Your task to perform on an android device: Is it going to rain this weekend? Image 0: 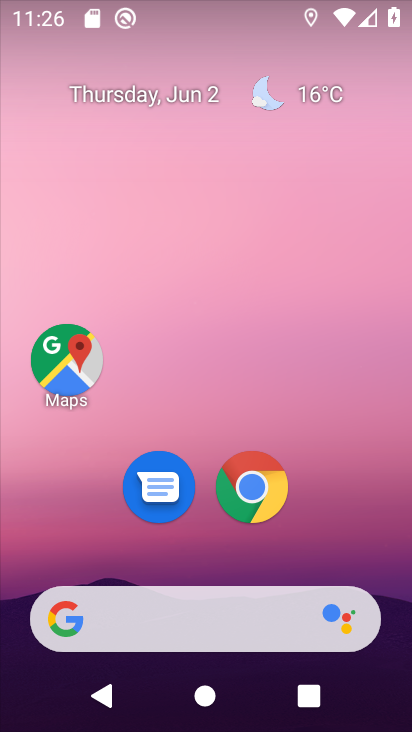
Step 0: drag from (337, 499) to (309, 43)
Your task to perform on an android device: Is it going to rain this weekend? Image 1: 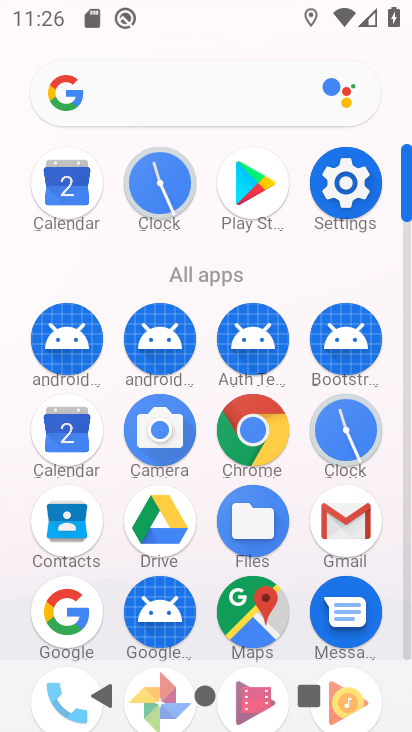
Step 1: drag from (296, 287) to (291, 66)
Your task to perform on an android device: Is it going to rain this weekend? Image 2: 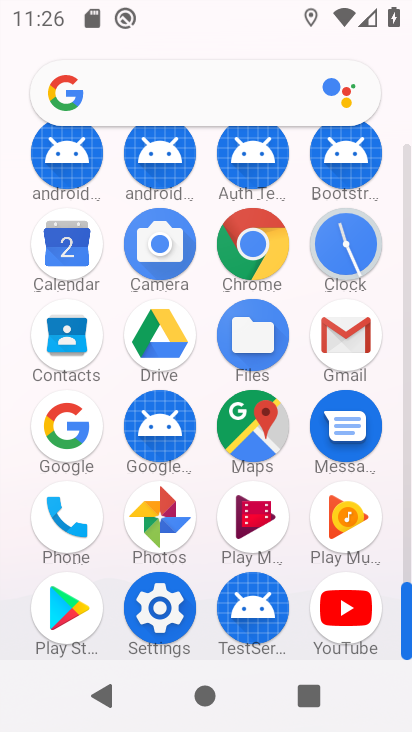
Step 2: click (60, 425)
Your task to perform on an android device: Is it going to rain this weekend? Image 3: 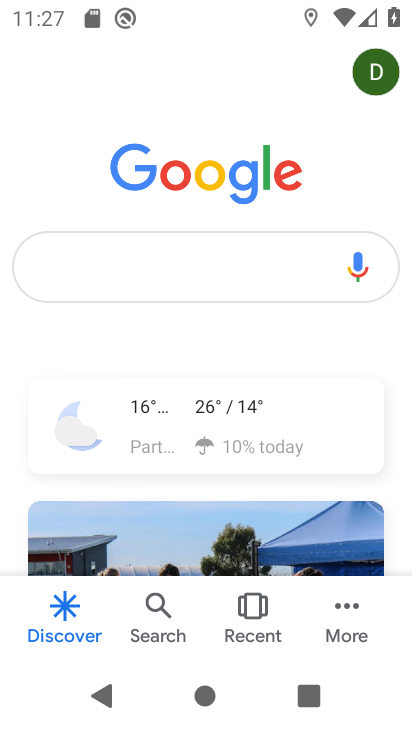
Step 3: click (169, 275)
Your task to perform on an android device: Is it going to rain this weekend? Image 4: 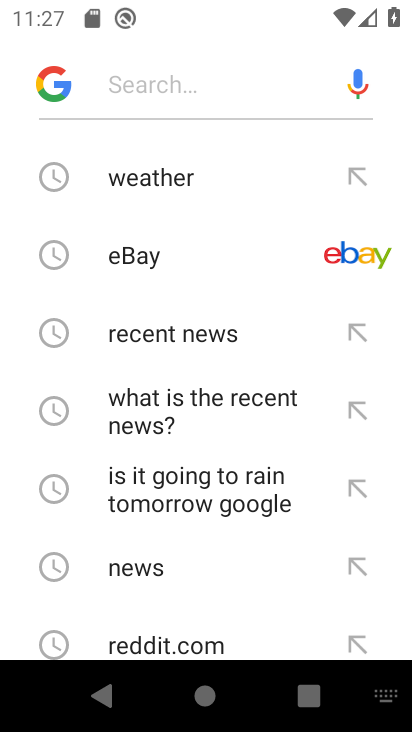
Step 4: type "Is it going to rain this weekend?"
Your task to perform on an android device: Is it going to rain this weekend? Image 5: 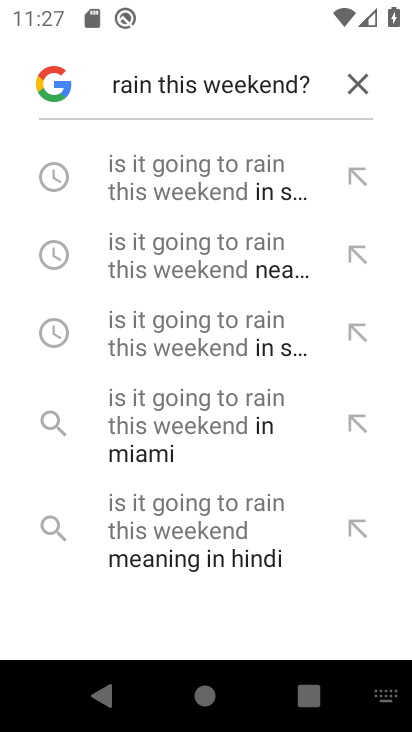
Step 5: click (248, 186)
Your task to perform on an android device: Is it going to rain this weekend? Image 6: 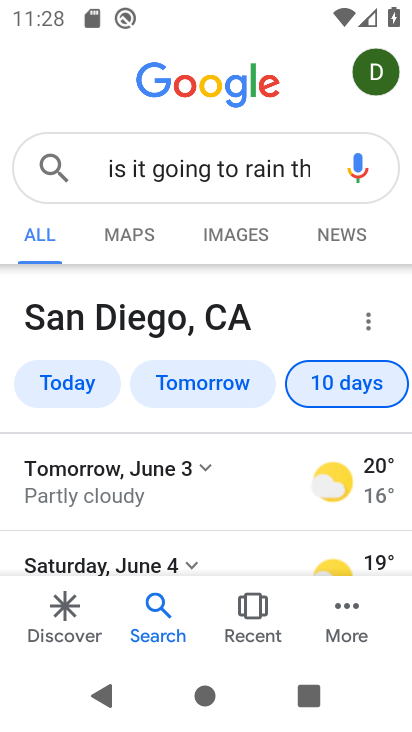
Step 6: task complete